Your task to perform on an android device: Open CNN.com Image 0: 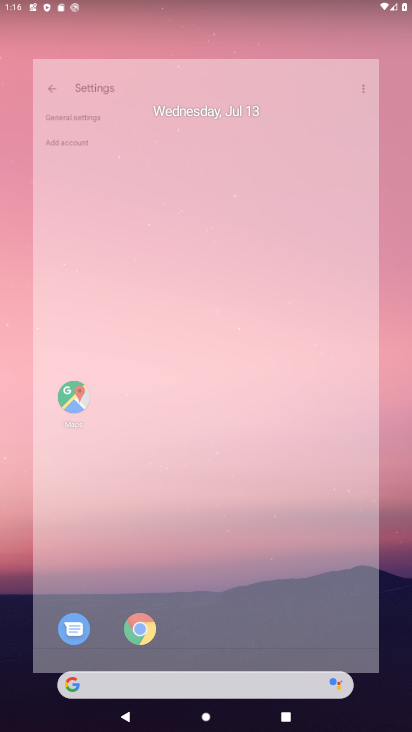
Step 0: click (273, 17)
Your task to perform on an android device: Open CNN.com Image 1: 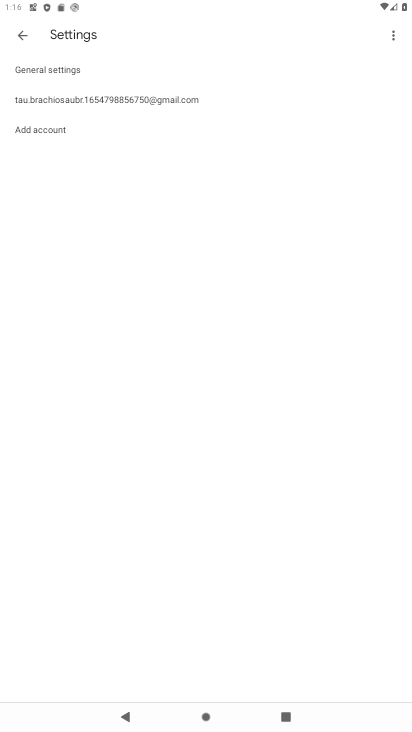
Step 1: press home button
Your task to perform on an android device: Open CNN.com Image 2: 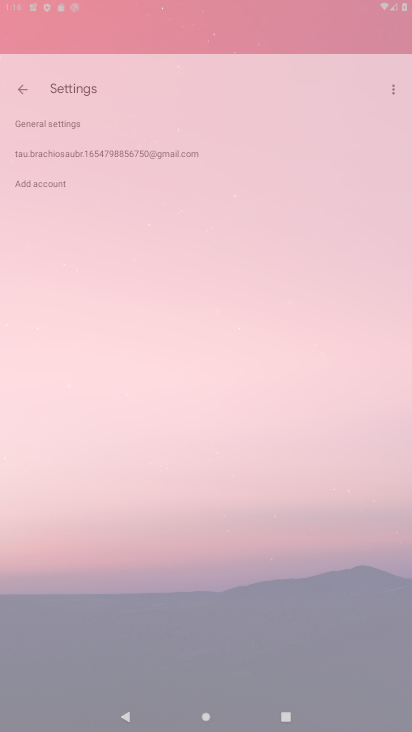
Step 2: drag from (310, 568) to (326, 224)
Your task to perform on an android device: Open CNN.com Image 3: 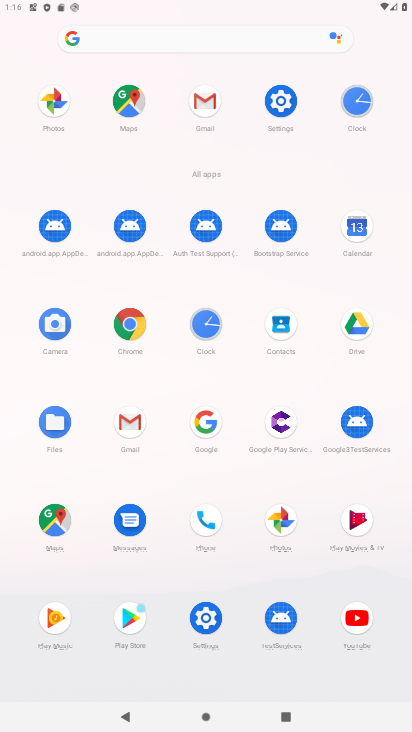
Step 3: click (198, 35)
Your task to perform on an android device: Open CNN.com Image 4: 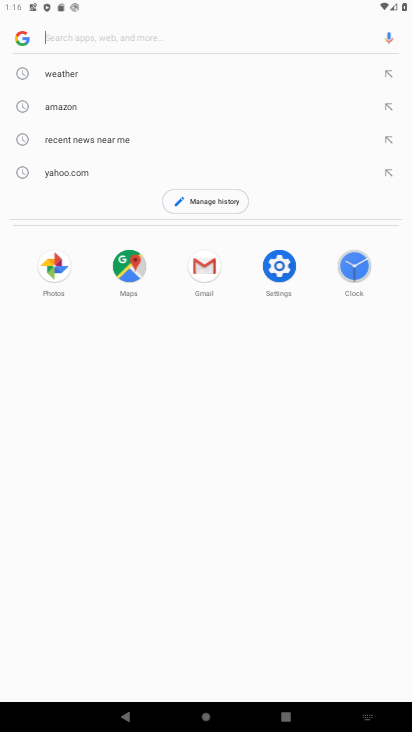
Step 4: type "cnn.com"
Your task to perform on an android device: Open CNN.com Image 5: 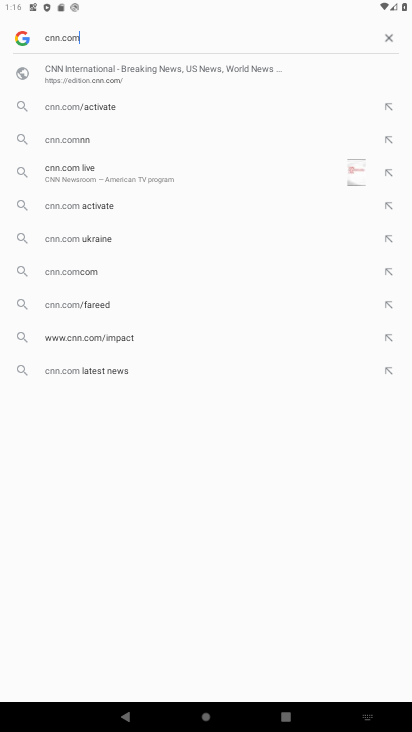
Step 5: click (102, 77)
Your task to perform on an android device: Open CNN.com Image 6: 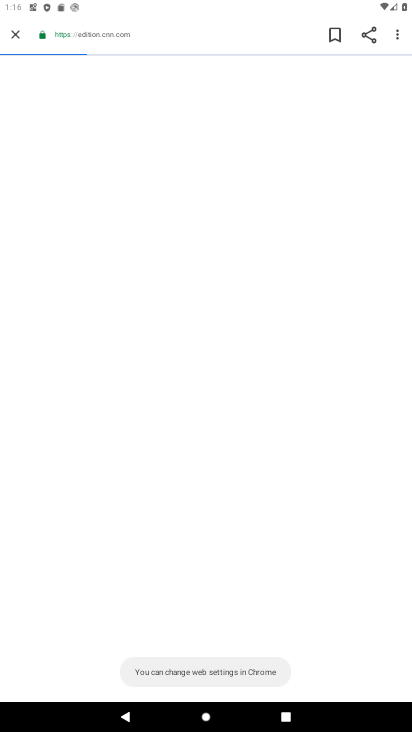
Step 6: click (218, 249)
Your task to perform on an android device: Open CNN.com Image 7: 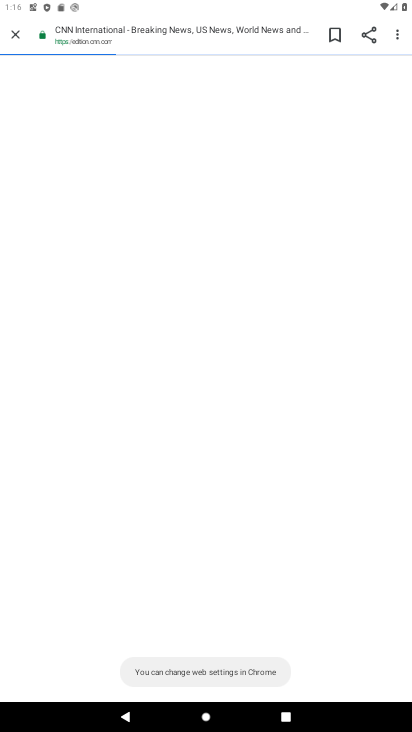
Step 7: task complete